Your task to perform on an android device: Show me the alarms in the clock app Image 0: 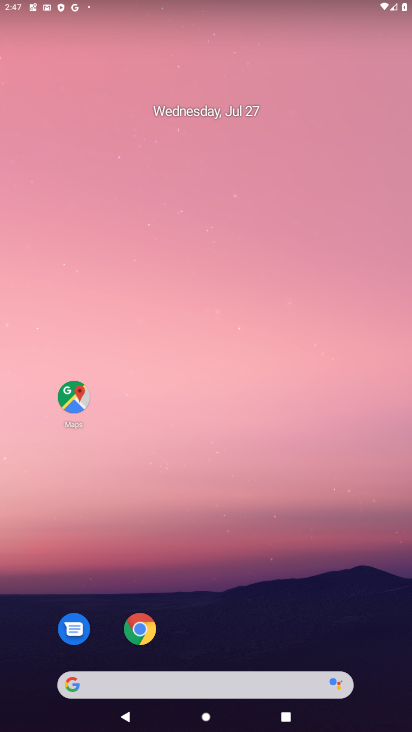
Step 0: task complete